Your task to perform on an android device: Is it going to rain today? Image 0: 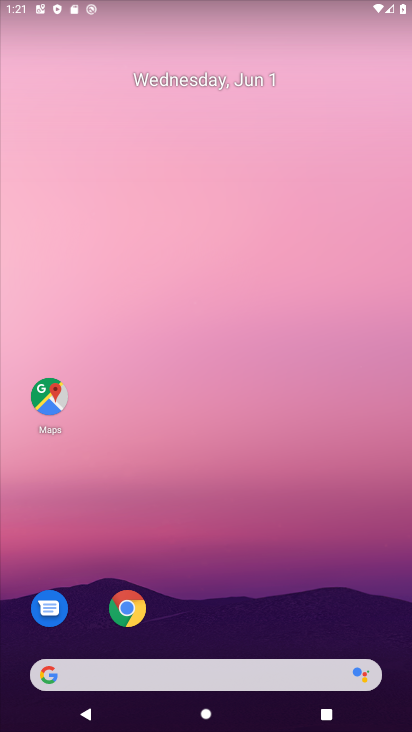
Step 0: press home button
Your task to perform on an android device: Is it going to rain today? Image 1: 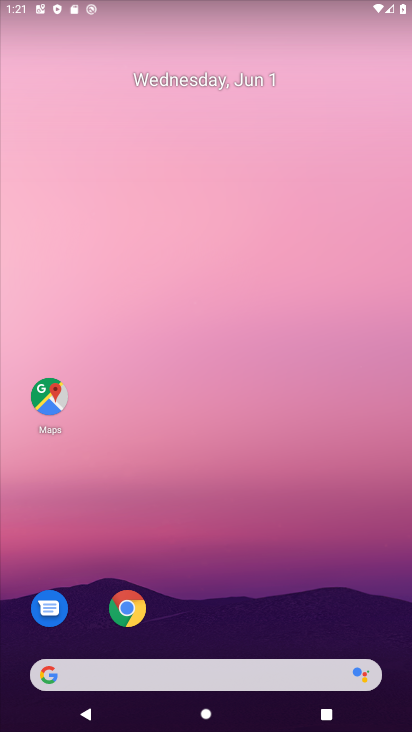
Step 1: click (179, 672)
Your task to perform on an android device: Is it going to rain today? Image 2: 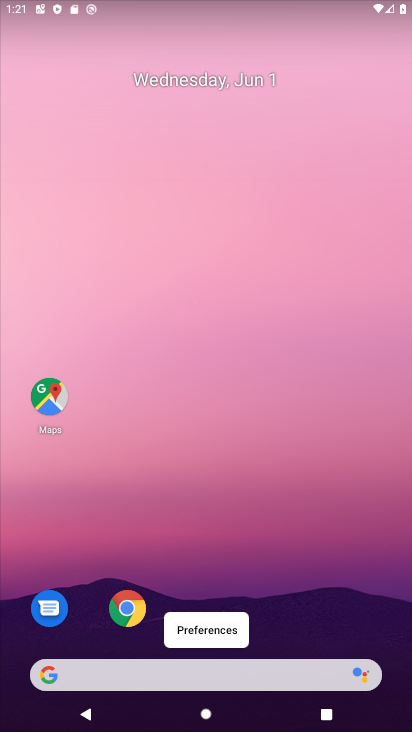
Step 2: click (179, 692)
Your task to perform on an android device: Is it going to rain today? Image 3: 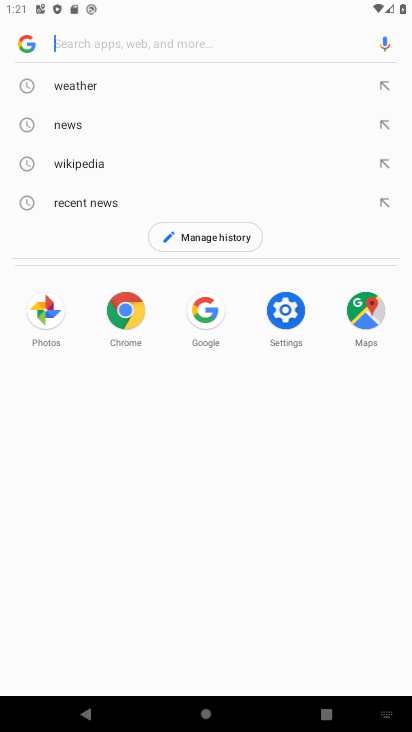
Step 3: click (86, 91)
Your task to perform on an android device: Is it going to rain today? Image 4: 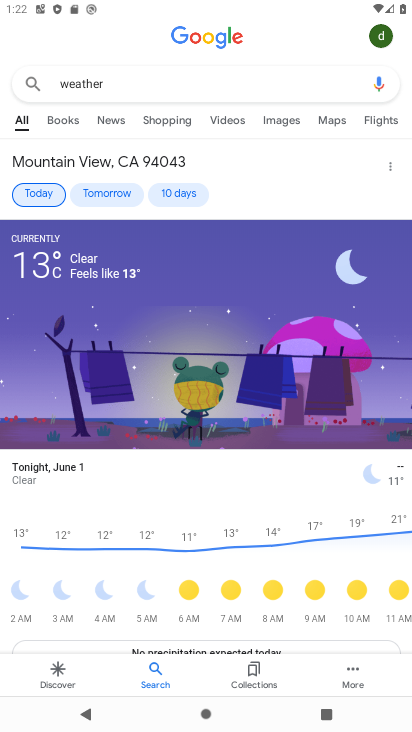
Step 4: task complete